Your task to perform on an android device: change text size in settings app Image 0: 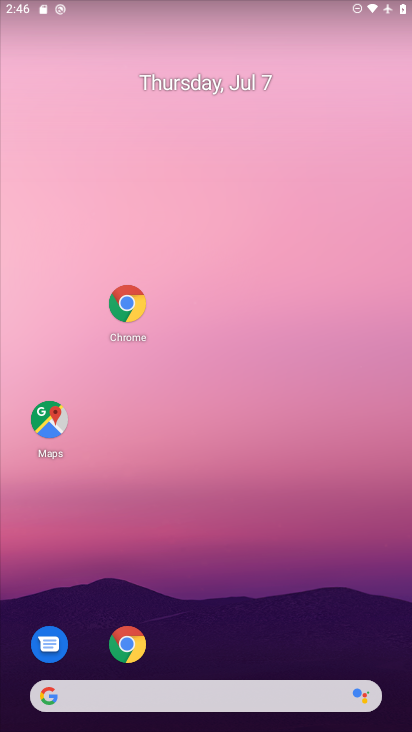
Step 0: drag from (187, 634) to (288, 18)
Your task to perform on an android device: change text size in settings app Image 1: 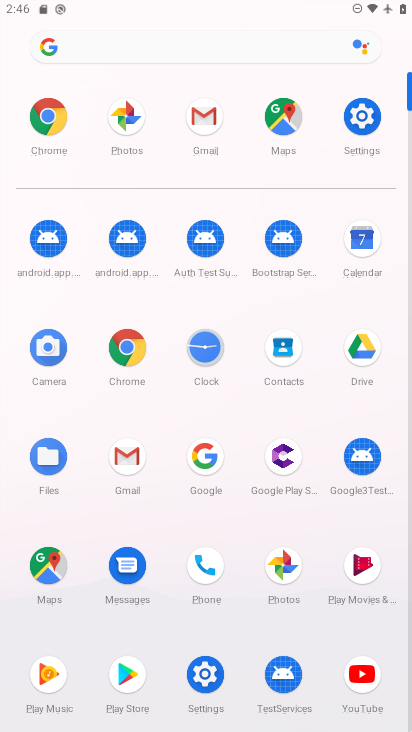
Step 1: click (283, 478)
Your task to perform on an android device: change text size in settings app Image 2: 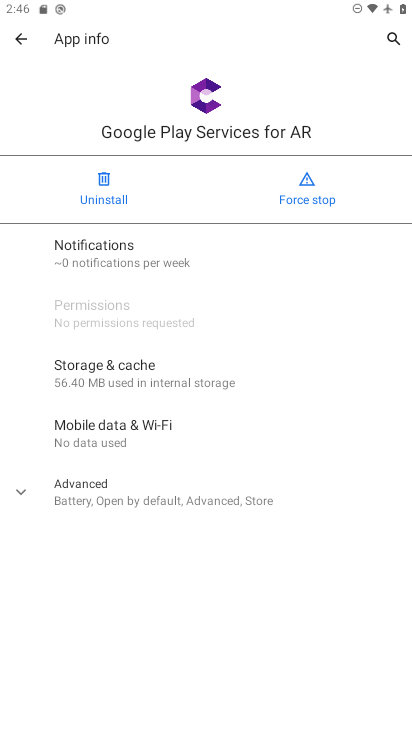
Step 2: click (341, 375)
Your task to perform on an android device: change text size in settings app Image 3: 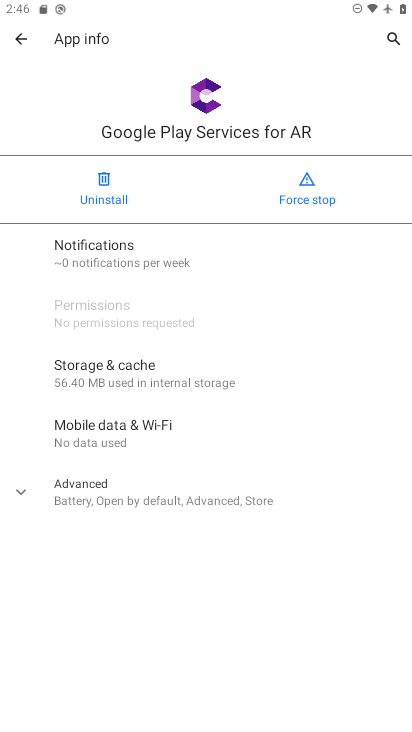
Step 3: press home button
Your task to perform on an android device: change text size in settings app Image 4: 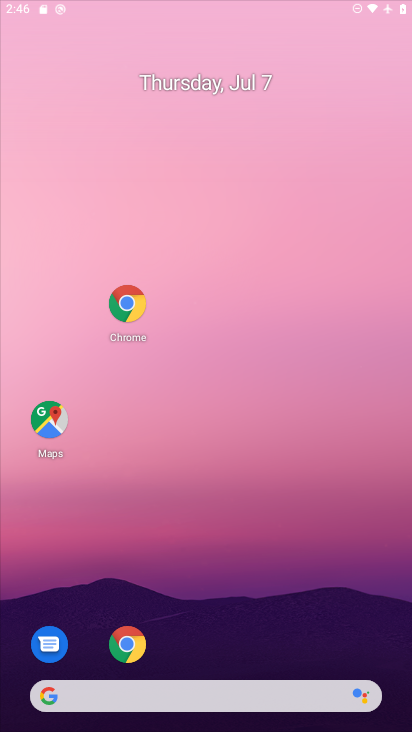
Step 4: drag from (360, 458) to (322, 486)
Your task to perform on an android device: change text size in settings app Image 5: 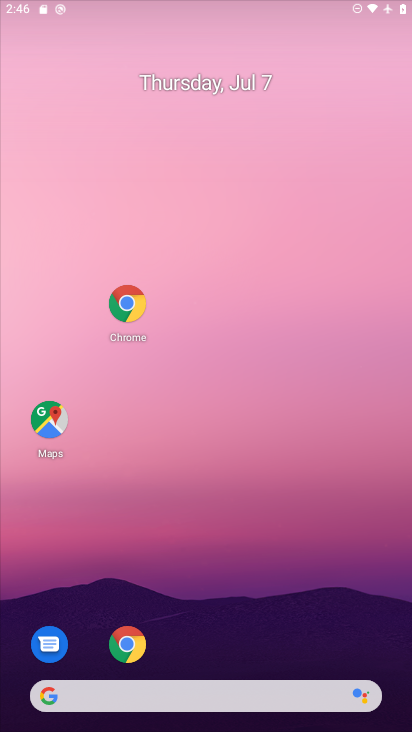
Step 5: drag from (268, 523) to (295, 18)
Your task to perform on an android device: change text size in settings app Image 6: 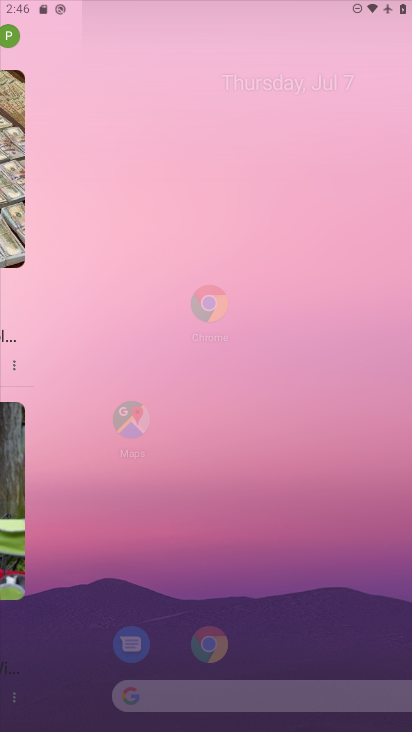
Step 6: drag from (169, 344) to (144, 404)
Your task to perform on an android device: change text size in settings app Image 7: 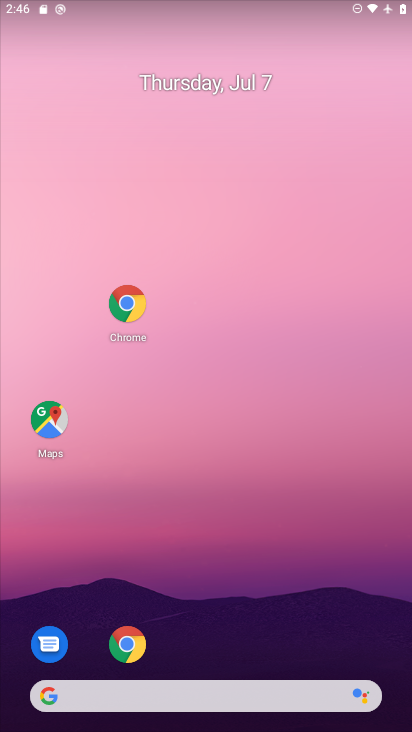
Step 7: drag from (173, 638) to (258, 53)
Your task to perform on an android device: change text size in settings app Image 8: 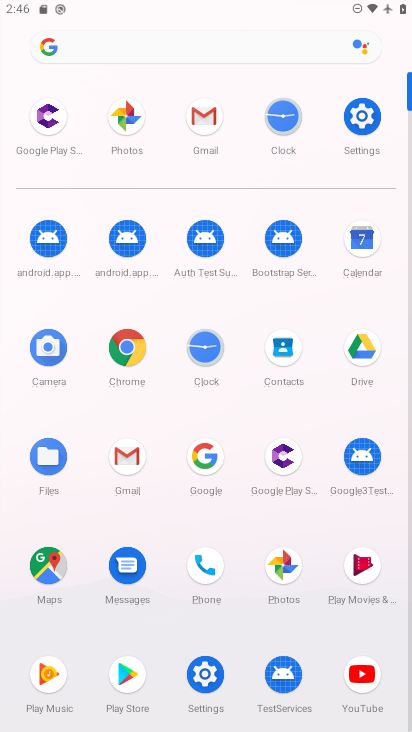
Step 8: click (230, 663)
Your task to perform on an android device: change text size in settings app Image 9: 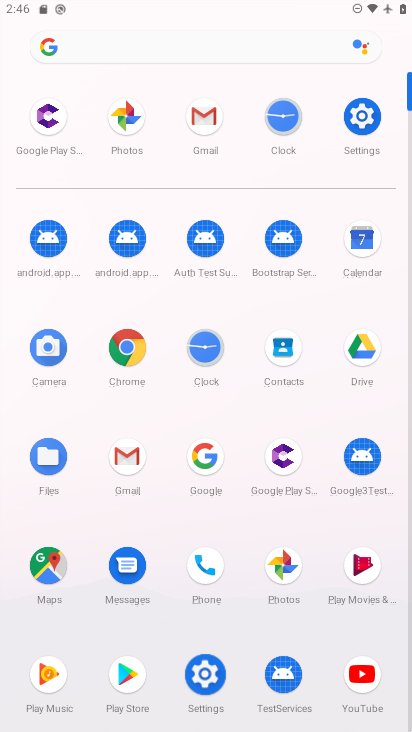
Step 9: click (210, 685)
Your task to perform on an android device: change text size in settings app Image 10: 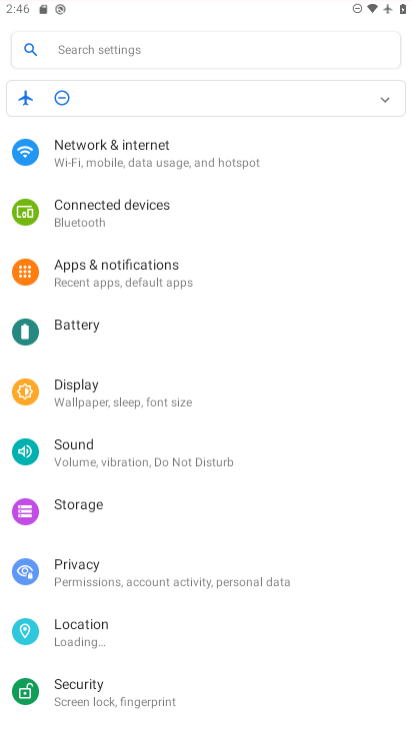
Step 10: click (267, 660)
Your task to perform on an android device: change text size in settings app Image 11: 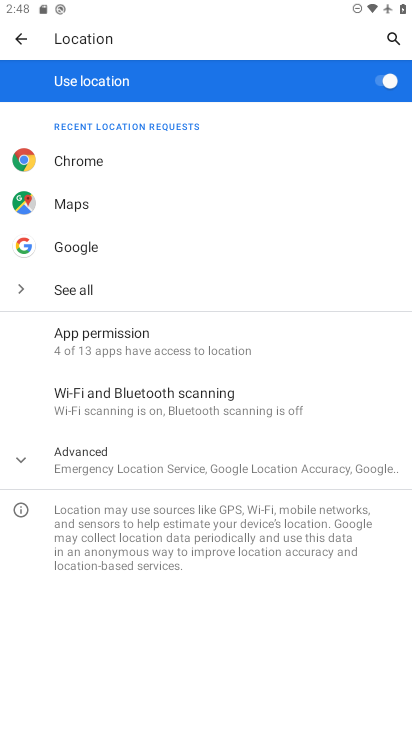
Step 11: press home button
Your task to perform on an android device: change text size in settings app Image 12: 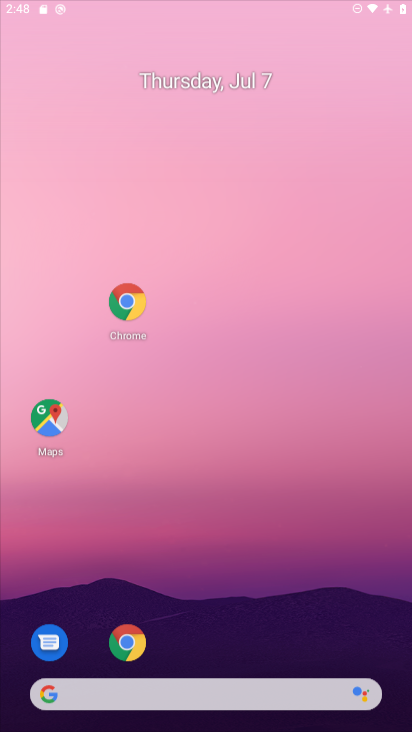
Step 12: click (233, 486)
Your task to perform on an android device: change text size in settings app Image 13: 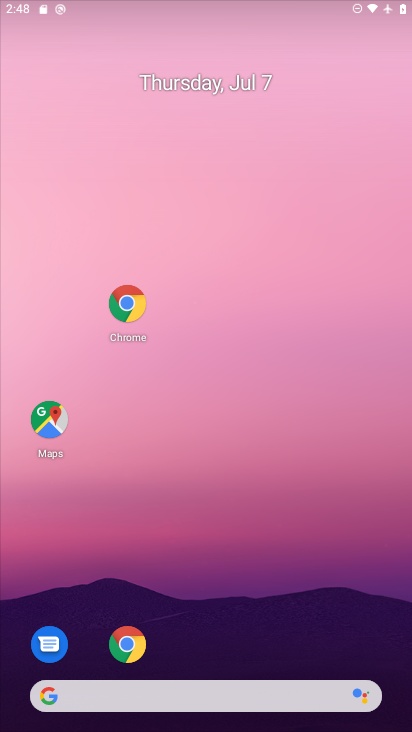
Step 13: drag from (217, 507) to (223, 3)
Your task to perform on an android device: change text size in settings app Image 14: 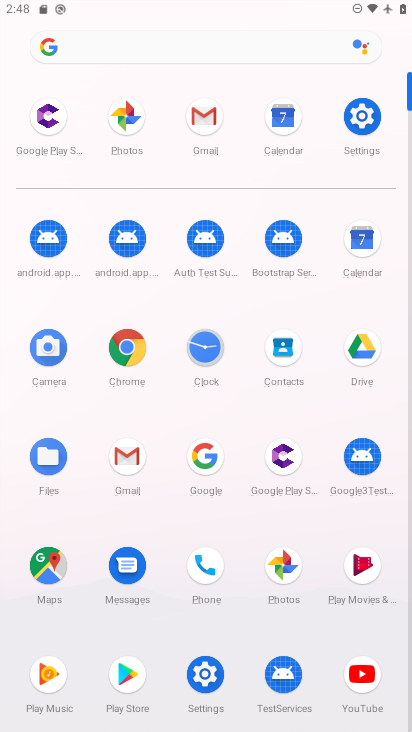
Step 14: click (363, 126)
Your task to perform on an android device: change text size in settings app Image 15: 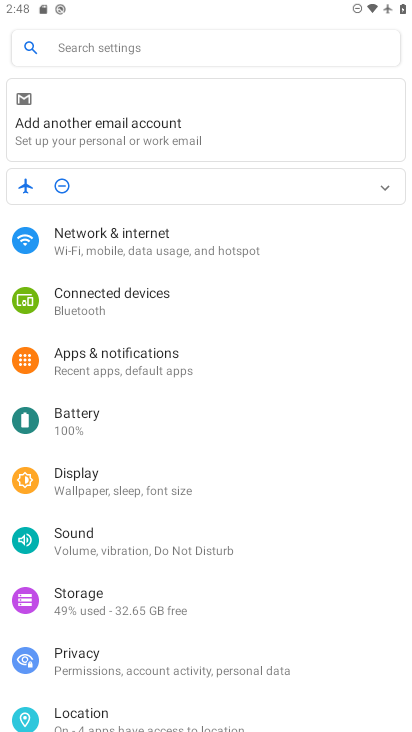
Step 15: click (124, 401)
Your task to perform on an android device: change text size in settings app Image 16: 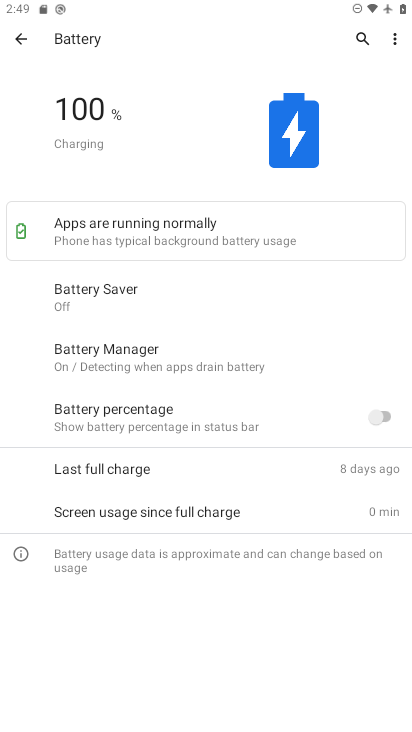
Step 16: click (326, 494)
Your task to perform on an android device: change text size in settings app Image 17: 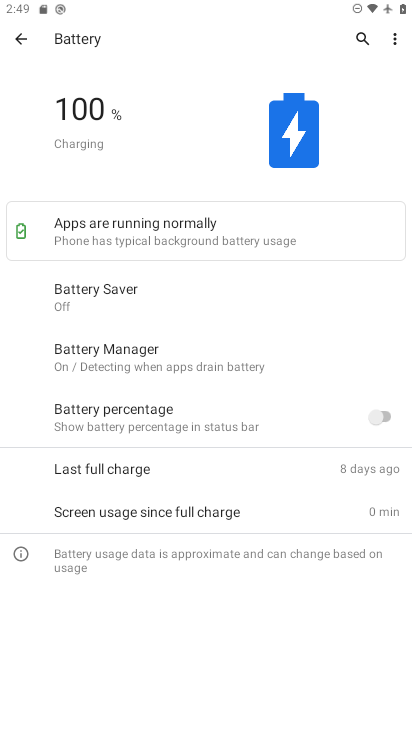
Step 17: press back button
Your task to perform on an android device: change text size in settings app Image 18: 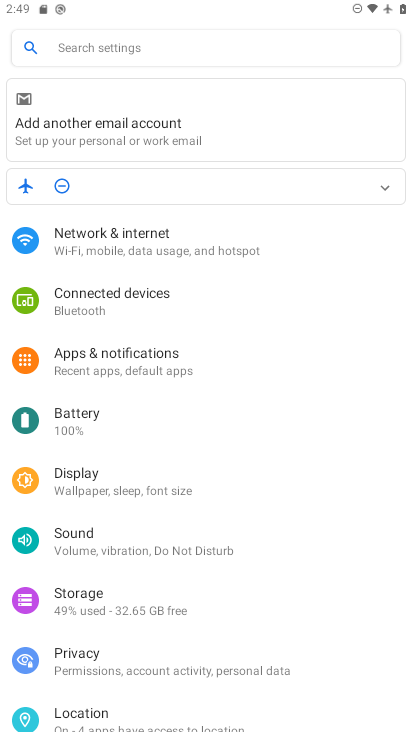
Step 18: click (331, 483)
Your task to perform on an android device: change text size in settings app Image 19: 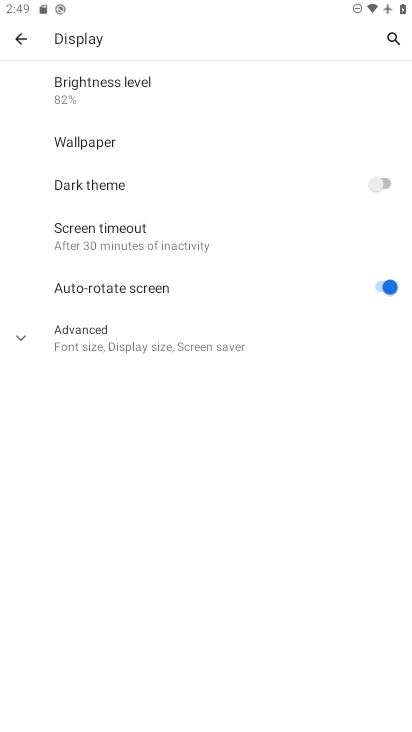
Step 19: press back button
Your task to perform on an android device: change text size in settings app Image 20: 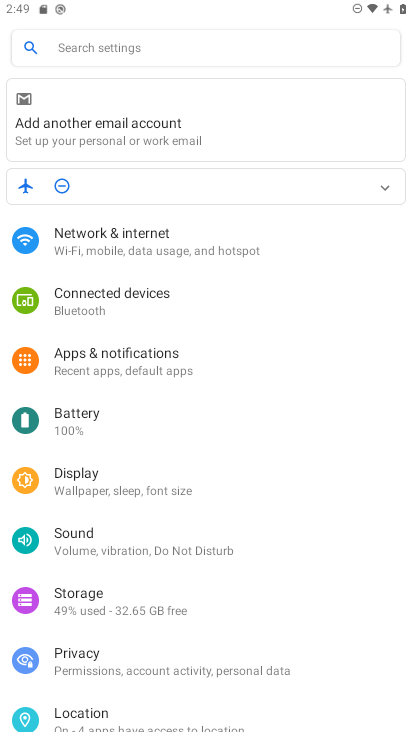
Step 20: click (152, 497)
Your task to perform on an android device: change text size in settings app Image 21: 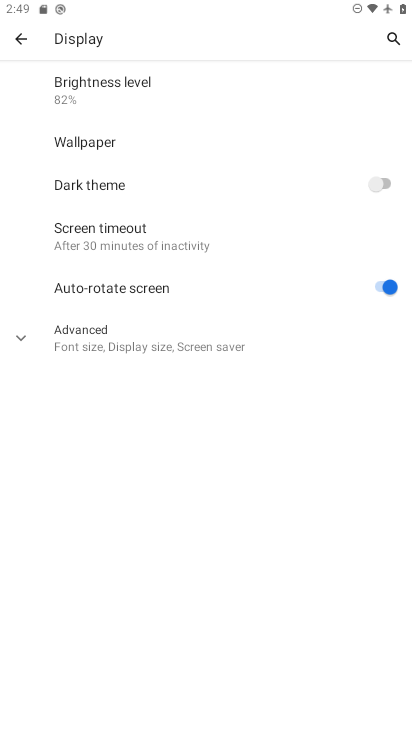
Step 21: click (187, 349)
Your task to perform on an android device: change text size in settings app Image 22: 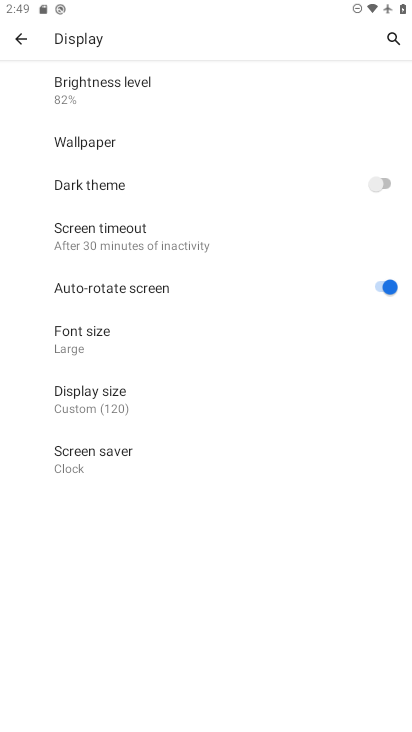
Step 22: click (159, 359)
Your task to perform on an android device: change text size in settings app Image 23: 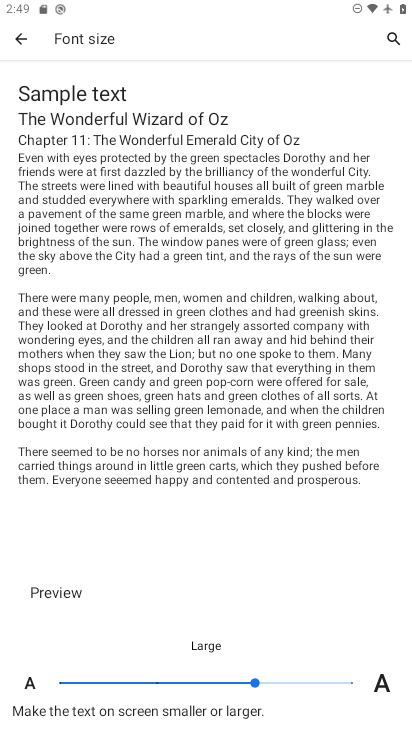
Step 23: click (335, 685)
Your task to perform on an android device: change text size in settings app Image 24: 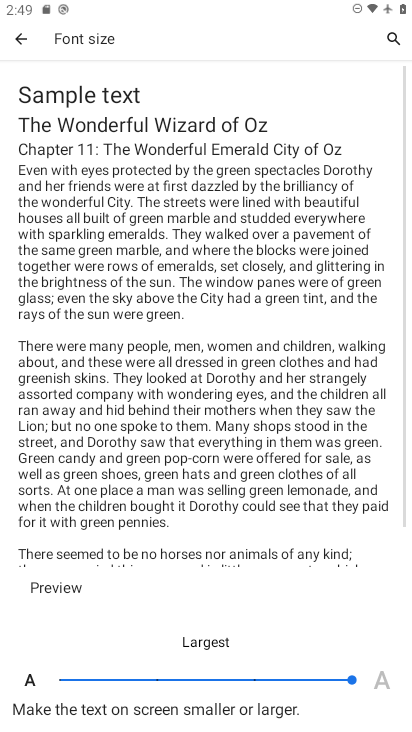
Step 24: task complete